Your task to perform on an android device: What's on my calendar today? Image 0: 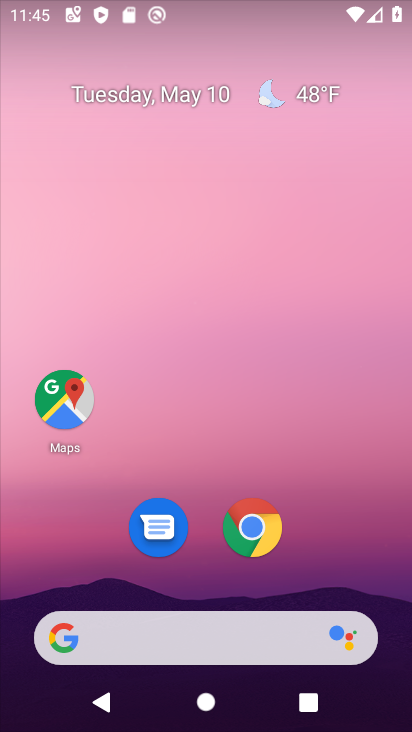
Step 0: drag from (230, 727) to (186, 106)
Your task to perform on an android device: What's on my calendar today? Image 1: 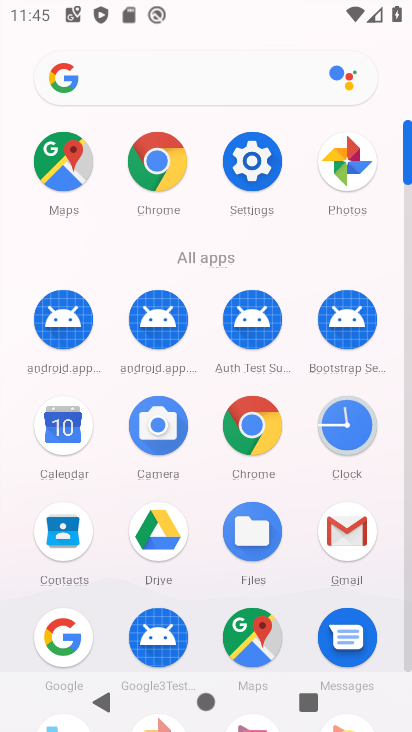
Step 1: click (56, 425)
Your task to perform on an android device: What's on my calendar today? Image 2: 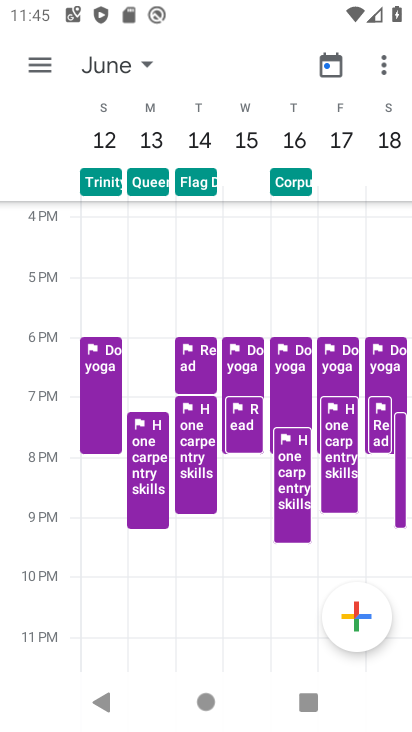
Step 2: drag from (110, 135) to (406, 154)
Your task to perform on an android device: What's on my calendar today? Image 3: 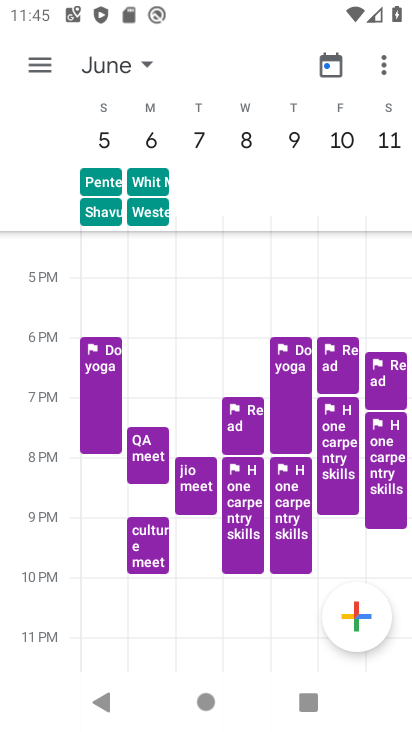
Step 3: drag from (136, 159) to (392, 180)
Your task to perform on an android device: What's on my calendar today? Image 4: 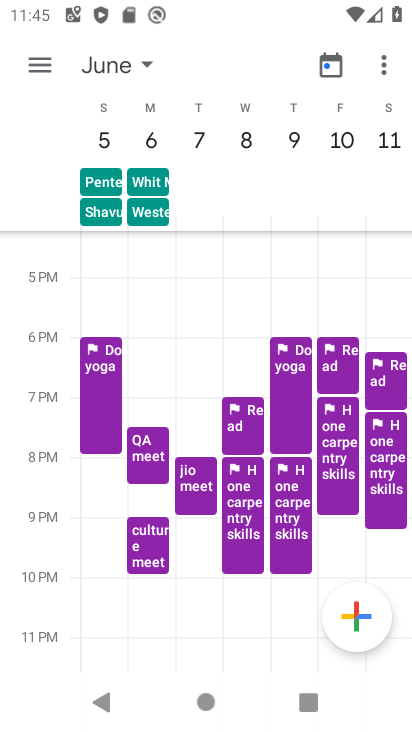
Step 4: click (145, 60)
Your task to perform on an android device: What's on my calendar today? Image 5: 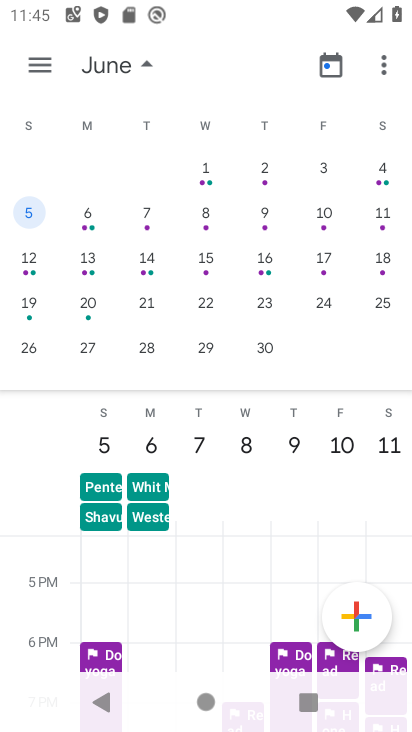
Step 5: drag from (38, 264) to (402, 263)
Your task to perform on an android device: What's on my calendar today? Image 6: 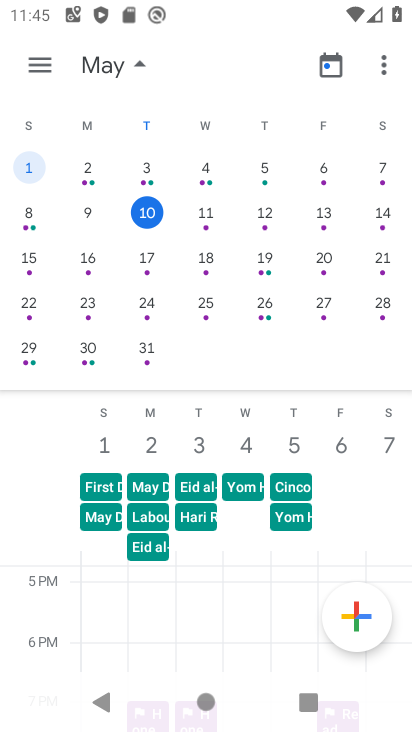
Step 6: click (142, 210)
Your task to perform on an android device: What's on my calendar today? Image 7: 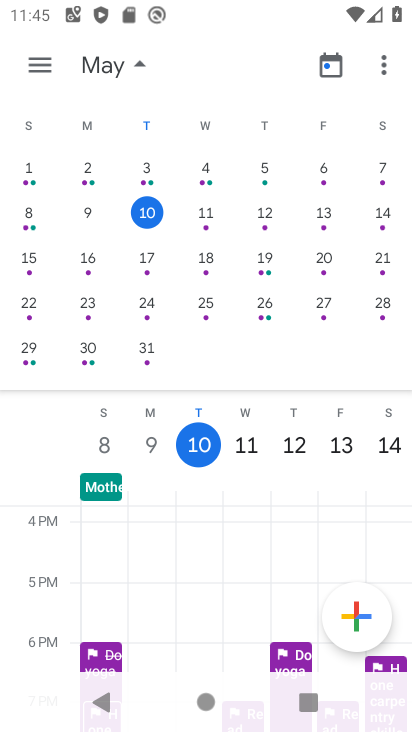
Step 7: task complete